Your task to perform on an android device: Open sound settings Image 0: 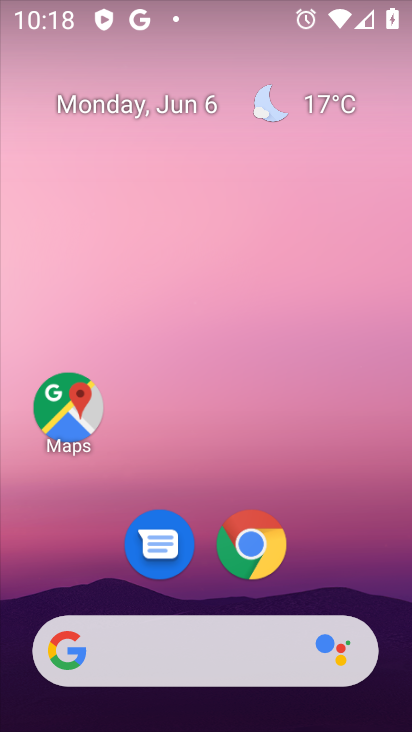
Step 0: drag from (147, 270) to (171, 144)
Your task to perform on an android device: Open sound settings Image 1: 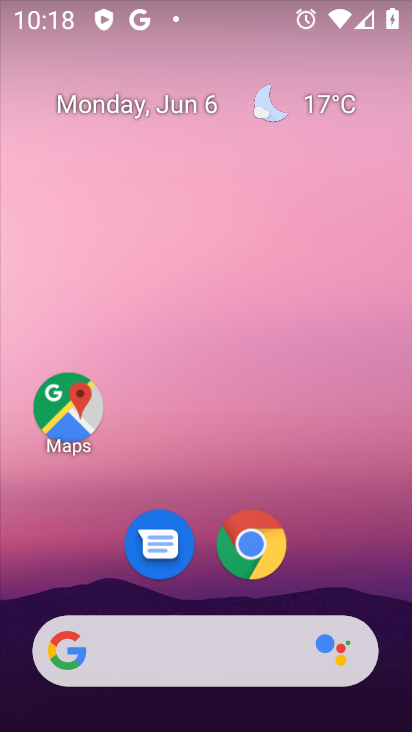
Step 1: drag from (63, 590) to (194, 101)
Your task to perform on an android device: Open sound settings Image 2: 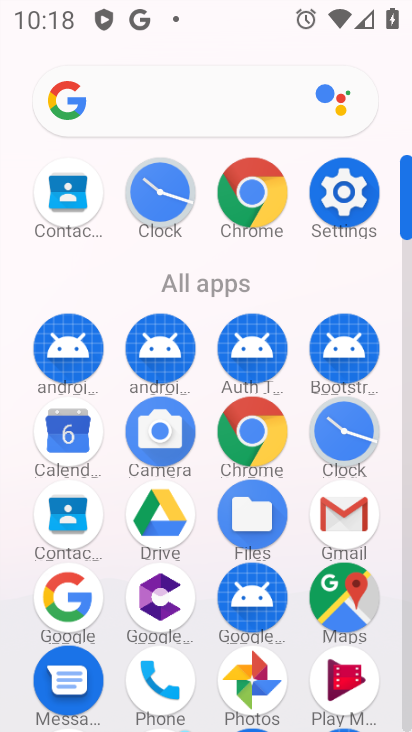
Step 2: drag from (148, 575) to (253, 195)
Your task to perform on an android device: Open sound settings Image 3: 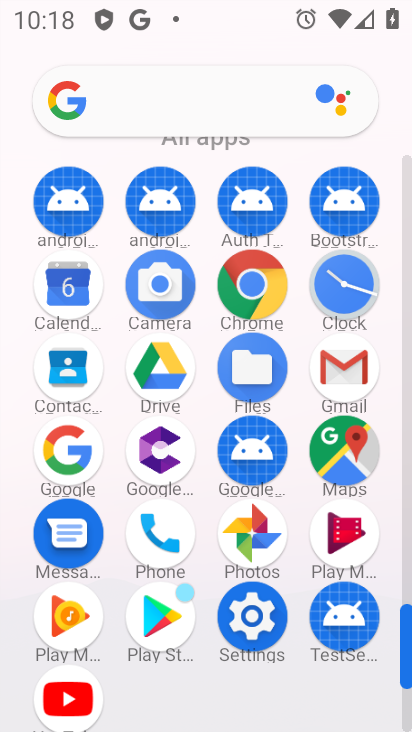
Step 3: click (249, 597)
Your task to perform on an android device: Open sound settings Image 4: 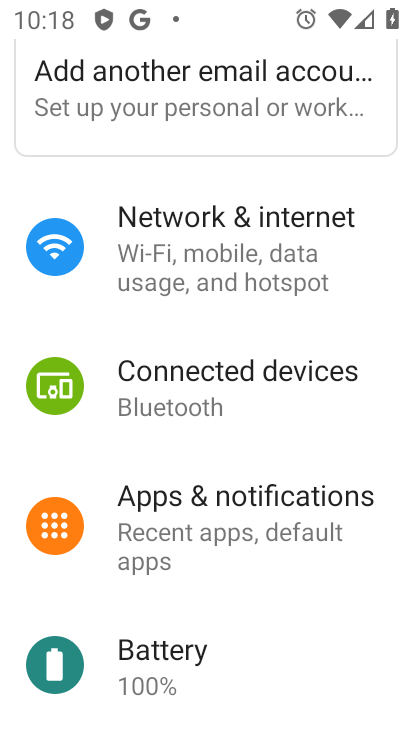
Step 4: drag from (149, 671) to (275, 313)
Your task to perform on an android device: Open sound settings Image 5: 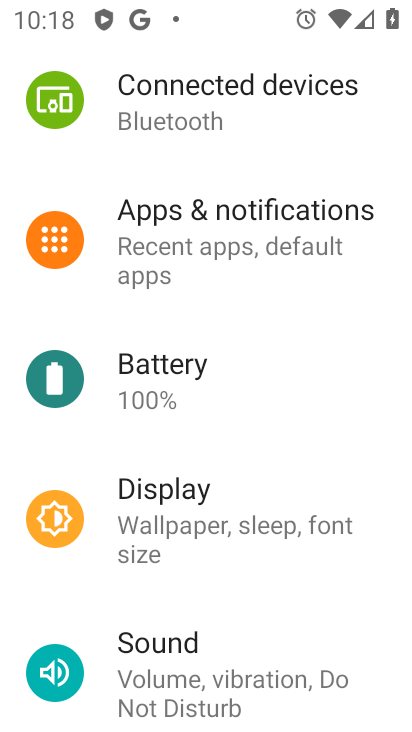
Step 5: click (213, 647)
Your task to perform on an android device: Open sound settings Image 6: 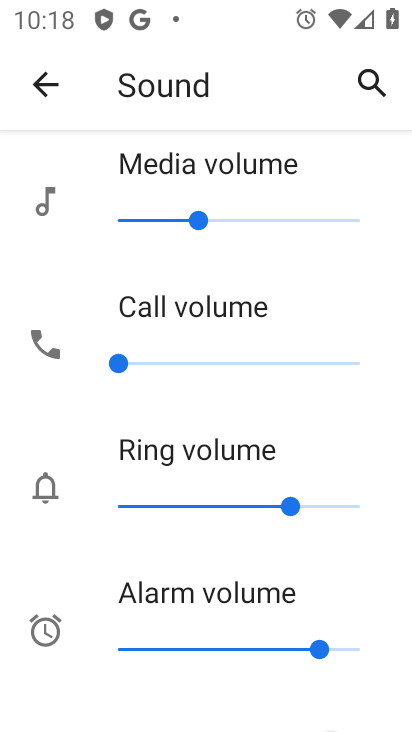
Step 6: task complete